Your task to perform on an android device: Go to display settings Image 0: 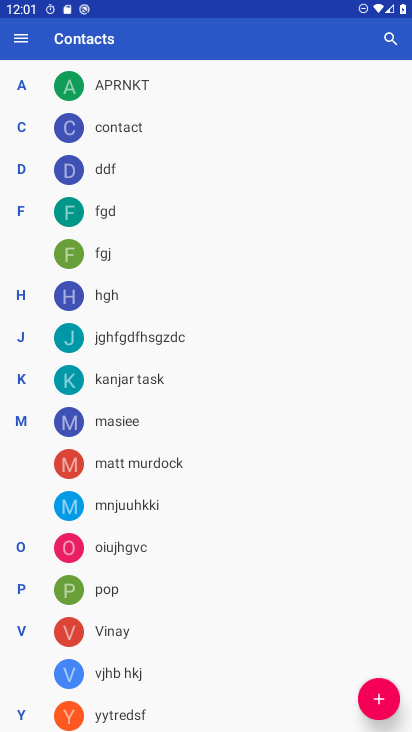
Step 0: press home button
Your task to perform on an android device: Go to display settings Image 1: 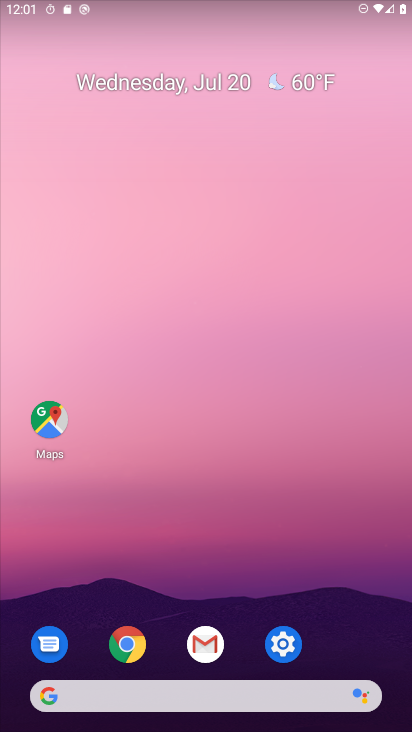
Step 1: click (298, 646)
Your task to perform on an android device: Go to display settings Image 2: 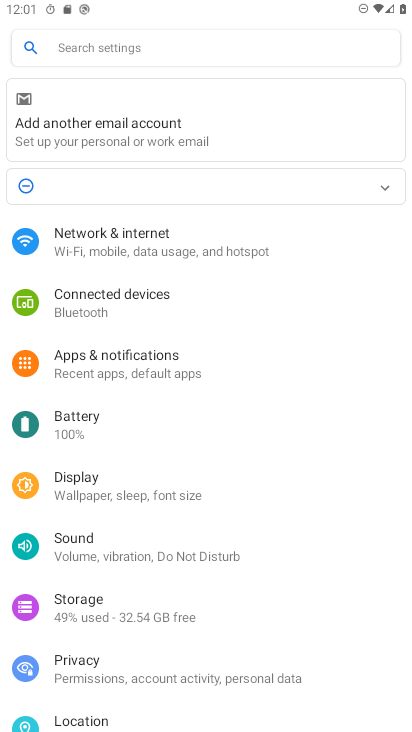
Step 2: click (104, 489)
Your task to perform on an android device: Go to display settings Image 3: 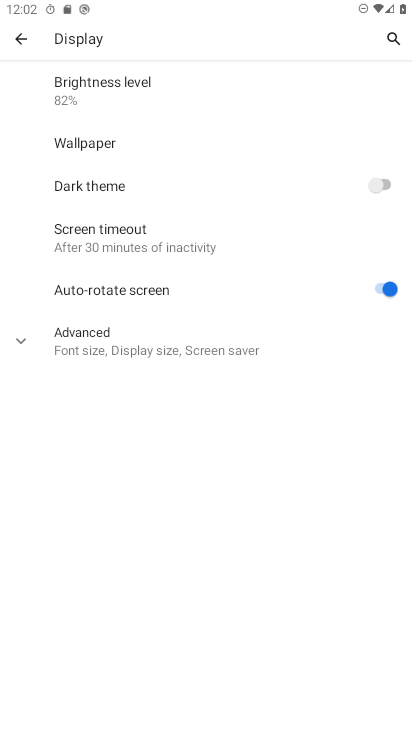
Step 3: task complete